Your task to perform on an android device: find which apps use the phone's location Image 0: 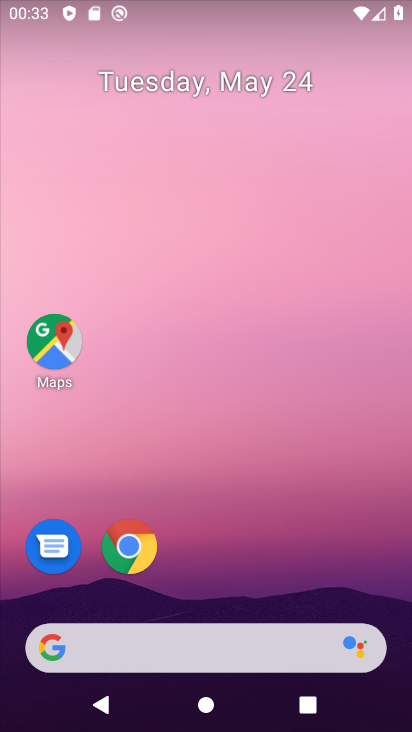
Step 0: drag from (327, 592) to (293, 45)
Your task to perform on an android device: find which apps use the phone's location Image 1: 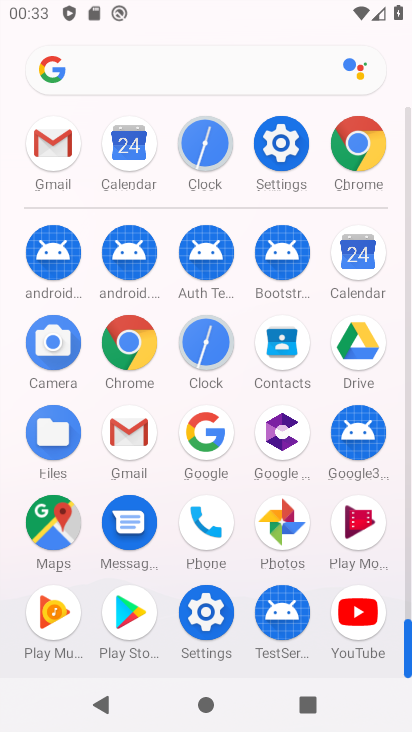
Step 1: click (292, 150)
Your task to perform on an android device: find which apps use the phone's location Image 2: 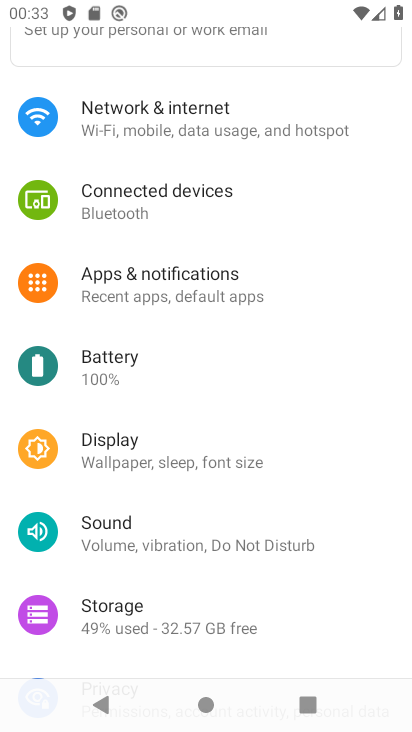
Step 2: drag from (146, 596) to (182, 70)
Your task to perform on an android device: find which apps use the phone's location Image 3: 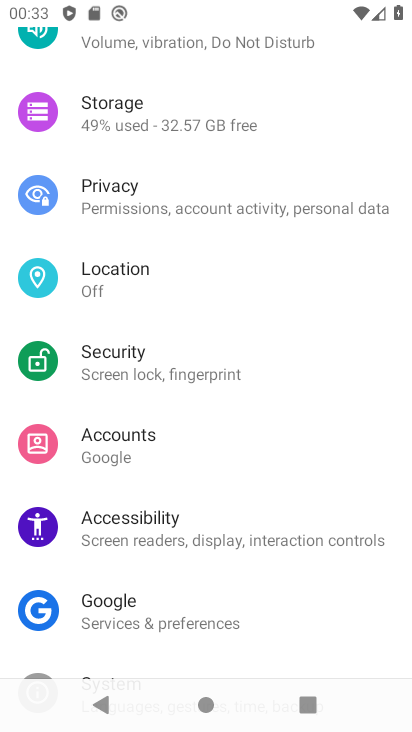
Step 3: drag from (197, 191) to (186, 296)
Your task to perform on an android device: find which apps use the phone's location Image 4: 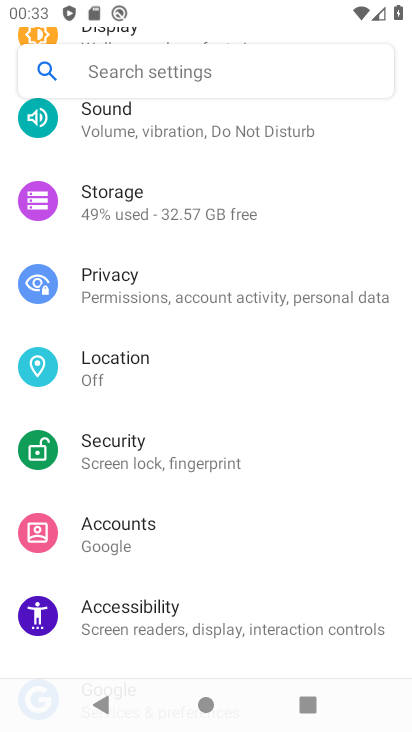
Step 4: click (149, 287)
Your task to perform on an android device: find which apps use the phone's location Image 5: 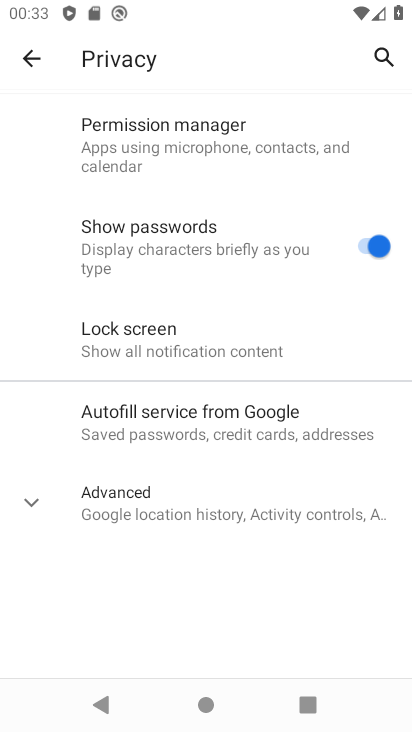
Step 5: press back button
Your task to perform on an android device: find which apps use the phone's location Image 6: 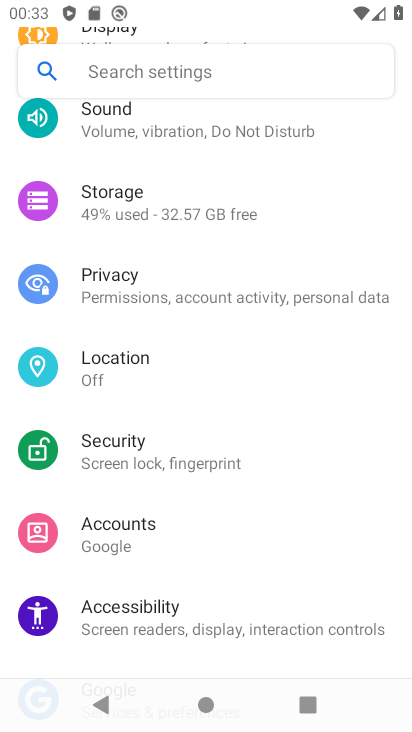
Step 6: click (153, 382)
Your task to perform on an android device: find which apps use the phone's location Image 7: 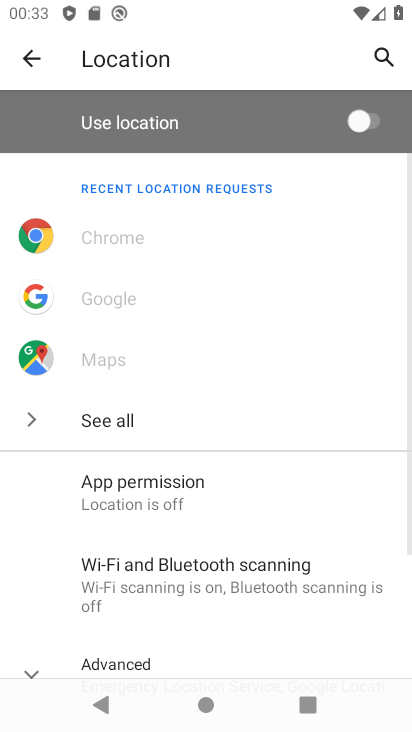
Step 7: click (183, 493)
Your task to perform on an android device: find which apps use the phone's location Image 8: 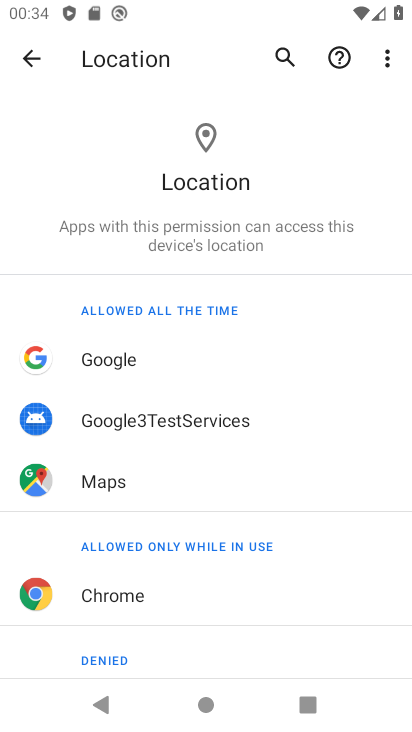
Step 8: task complete